Your task to perform on an android device: Go to Google Image 0: 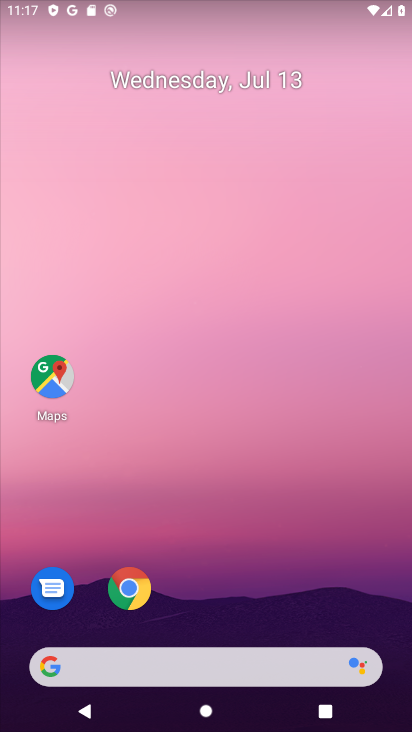
Step 0: drag from (203, 619) to (178, 195)
Your task to perform on an android device: Go to Google Image 1: 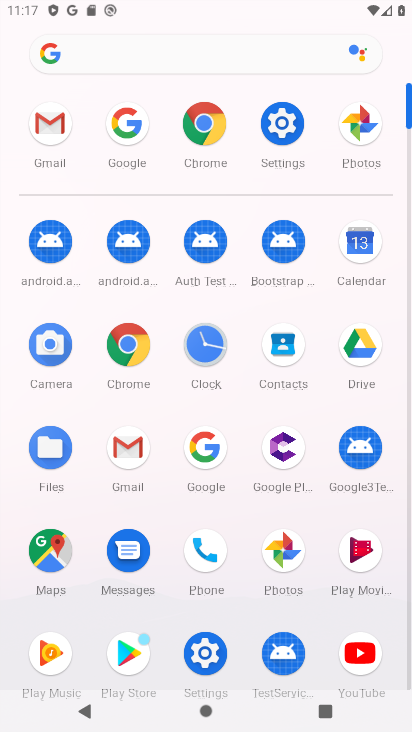
Step 1: click (201, 447)
Your task to perform on an android device: Go to Google Image 2: 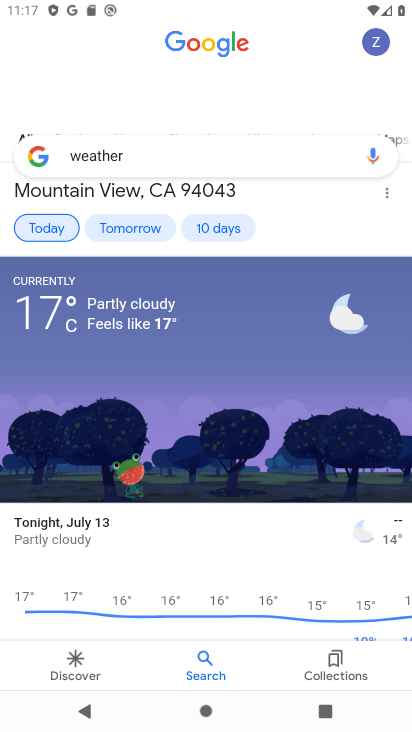
Step 2: task complete